Your task to perform on an android device: Turn on the flashlight Image 0: 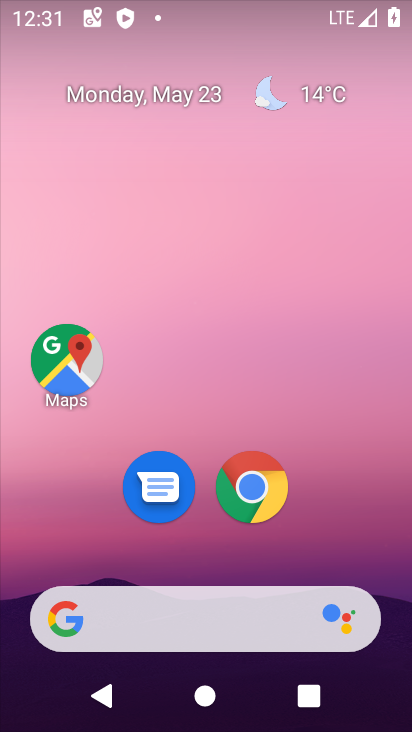
Step 0: drag from (256, 13) to (249, 359)
Your task to perform on an android device: Turn on the flashlight Image 1: 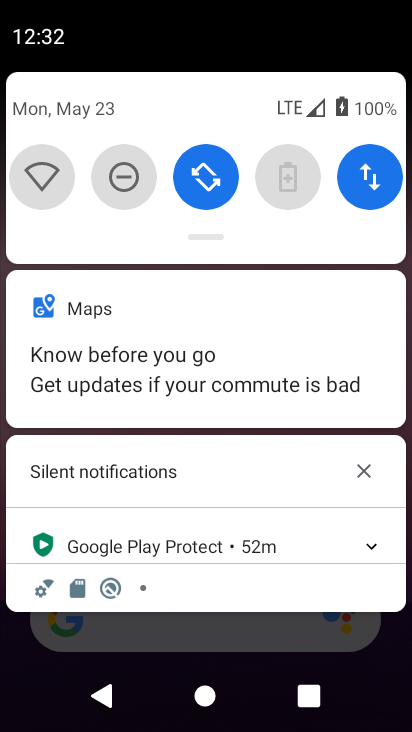
Step 1: drag from (208, 240) to (196, 526)
Your task to perform on an android device: Turn on the flashlight Image 2: 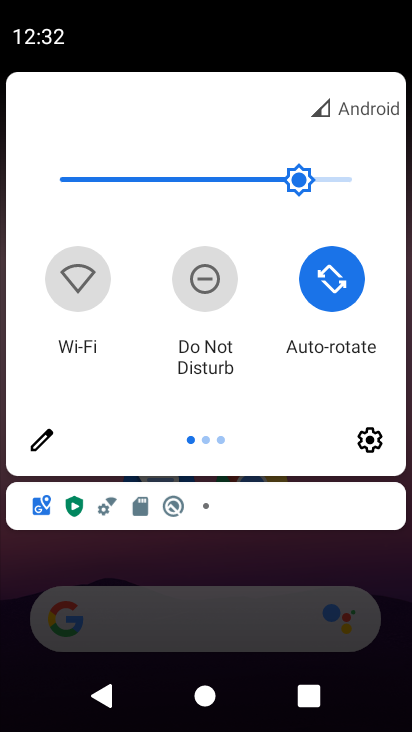
Step 2: click (39, 437)
Your task to perform on an android device: Turn on the flashlight Image 3: 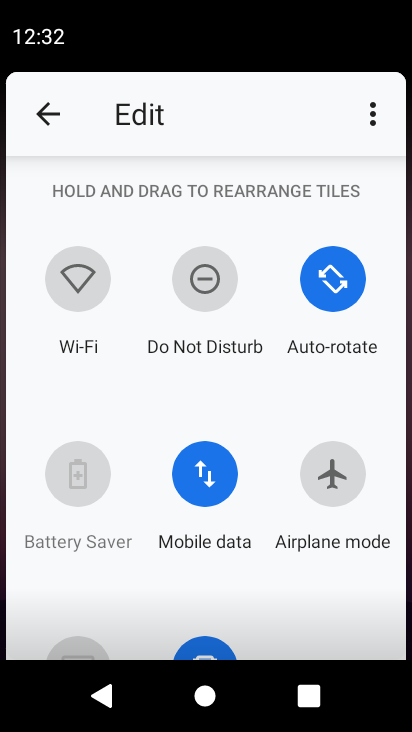
Step 3: task complete